Your task to perform on an android device: turn on translation in the chrome app Image 0: 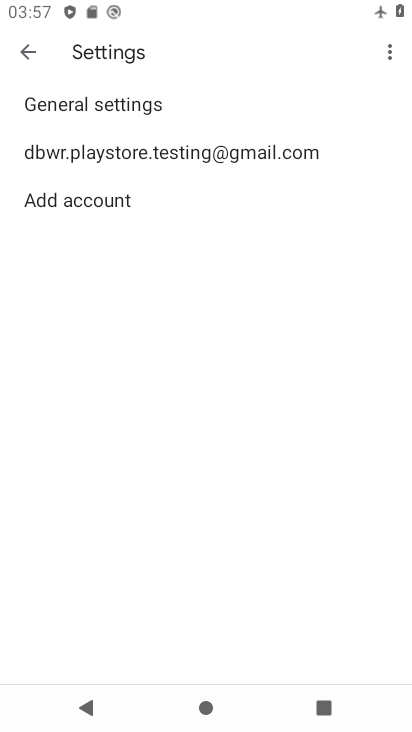
Step 0: press home button
Your task to perform on an android device: turn on translation in the chrome app Image 1: 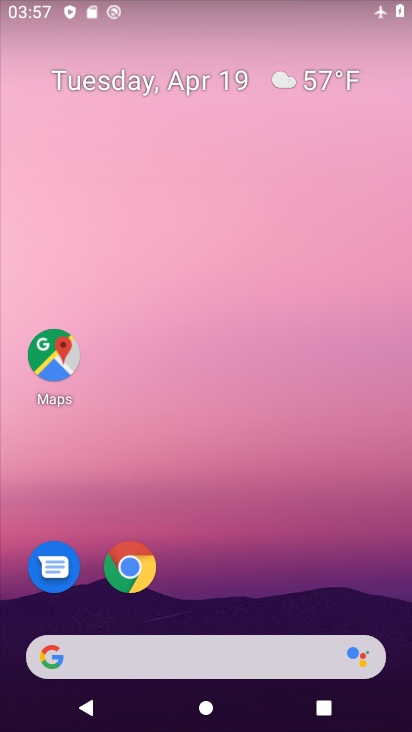
Step 1: drag from (370, 591) to (363, 204)
Your task to perform on an android device: turn on translation in the chrome app Image 2: 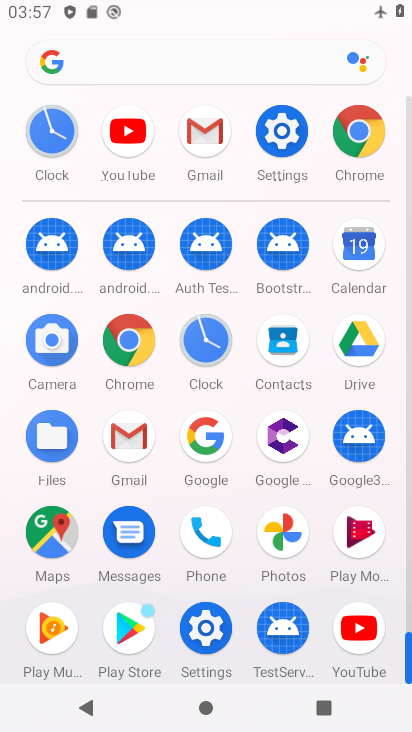
Step 2: click (339, 127)
Your task to perform on an android device: turn on translation in the chrome app Image 3: 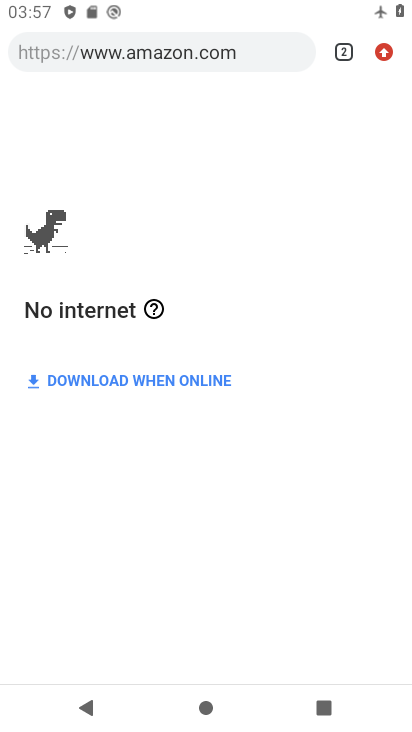
Step 3: click (382, 53)
Your task to perform on an android device: turn on translation in the chrome app Image 4: 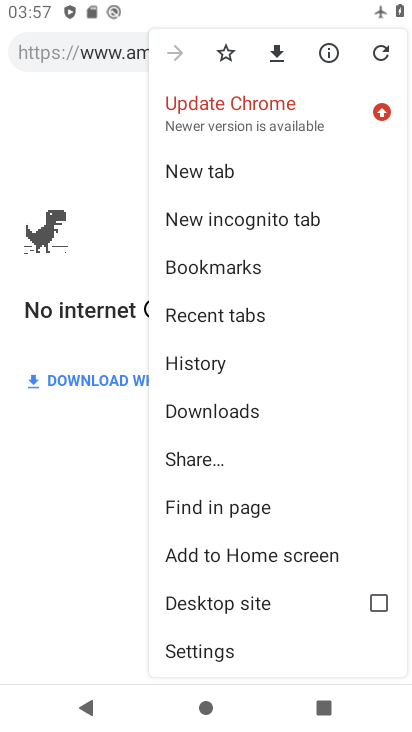
Step 4: click (225, 655)
Your task to perform on an android device: turn on translation in the chrome app Image 5: 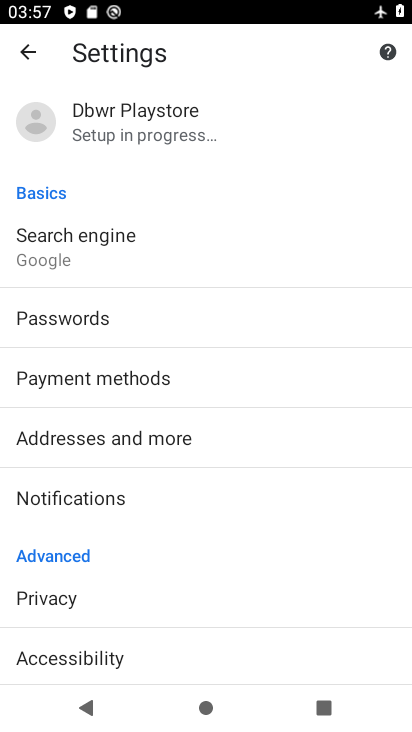
Step 5: drag from (308, 595) to (306, 456)
Your task to perform on an android device: turn on translation in the chrome app Image 6: 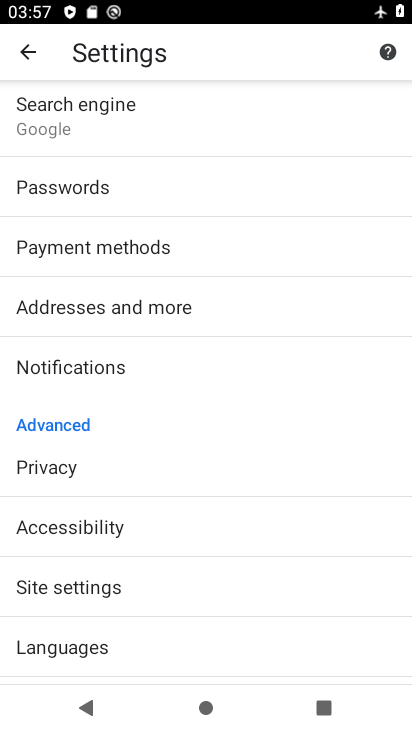
Step 6: drag from (332, 572) to (321, 424)
Your task to perform on an android device: turn on translation in the chrome app Image 7: 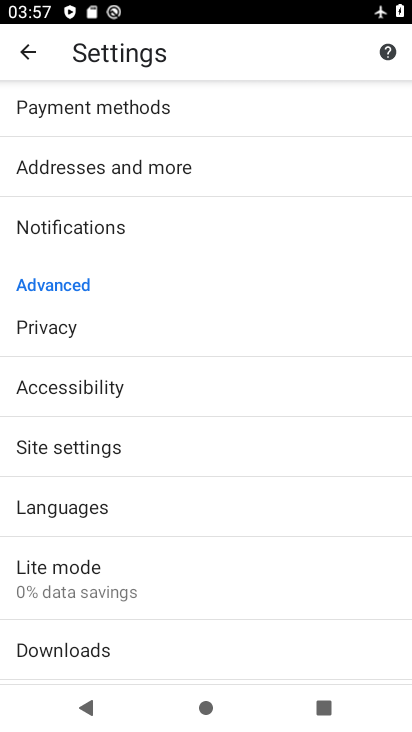
Step 7: drag from (321, 588) to (305, 443)
Your task to perform on an android device: turn on translation in the chrome app Image 8: 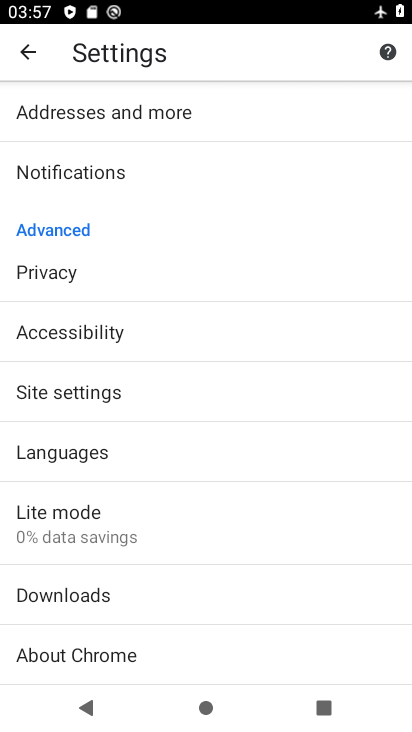
Step 8: drag from (297, 571) to (287, 436)
Your task to perform on an android device: turn on translation in the chrome app Image 9: 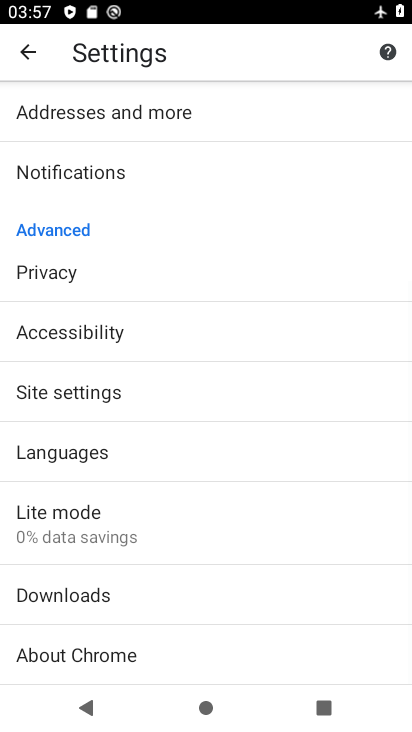
Step 9: click (278, 446)
Your task to perform on an android device: turn on translation in the chrome app Image 10: 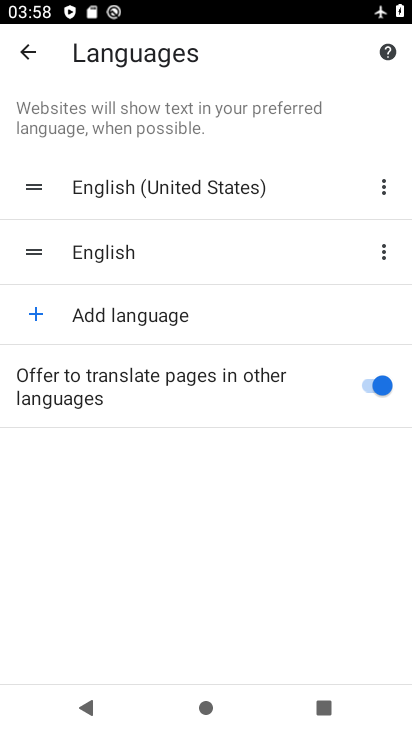
Step 10: task complete